Your task to perform on an android device: open chrome and create a bookmark for the current page Image 0: 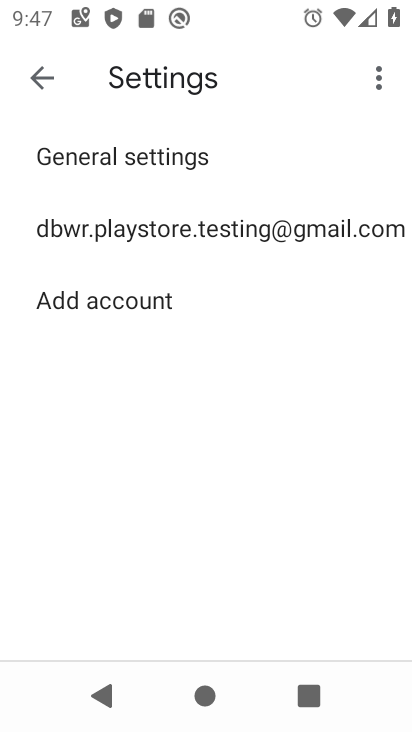
Step 0: press home button
Your task to perform on an android device: open chrome and create a bookmark for the current page Image 1: 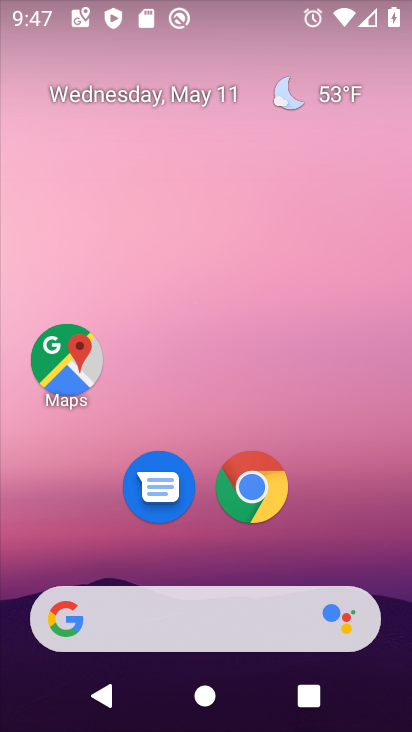
Step 1: click (247, 482)
Your task to perform on an android device: open chrome and create a bookmark for the current page Image 2: 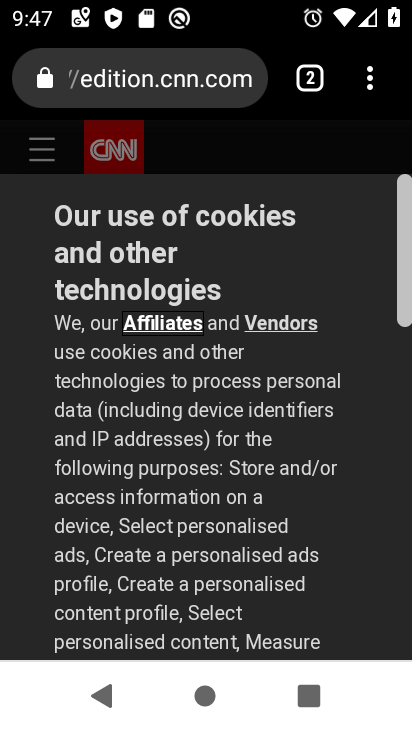
Step 2: task complete